Your task to perform on an android device: turn on airplane mode Image 0: 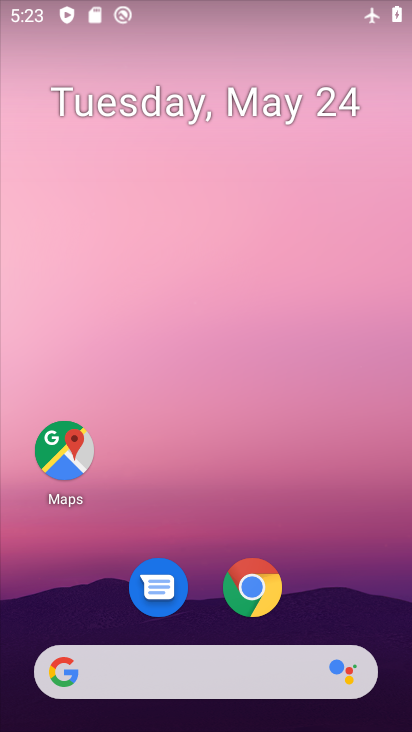
Step 0: drag from (369, 506) to (204, 2)
Your task to perform on an android device: turn on airplane mode Image 1: 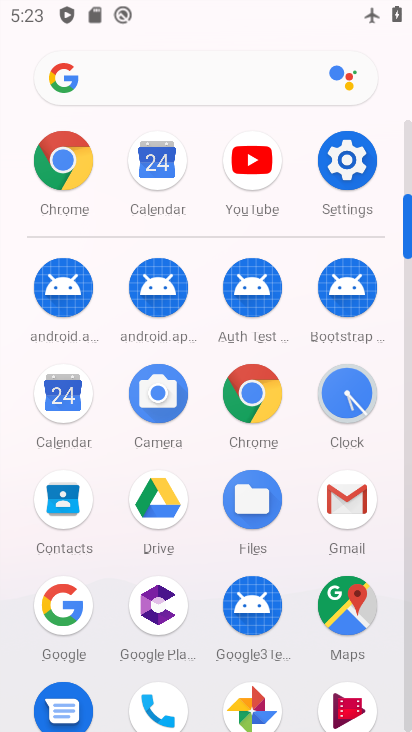
Step 1: click (347, 172)
Your task to perform on an android device: turn on airplane mode Image 2: 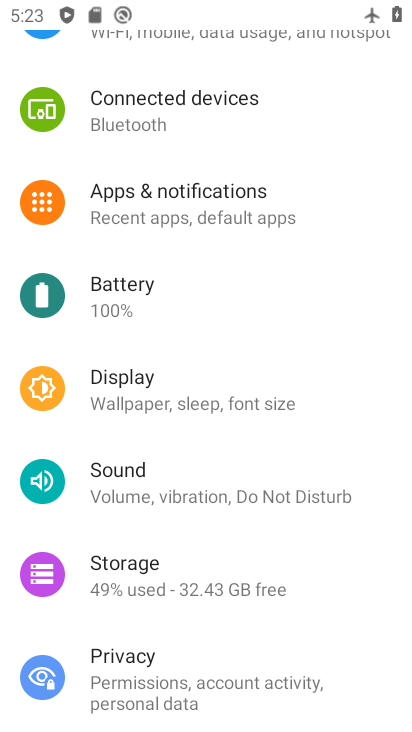
Step 2: drag from (268, 152) to (202, 651)
Your task to perform on an android device: turn on airplane mode Image 3: 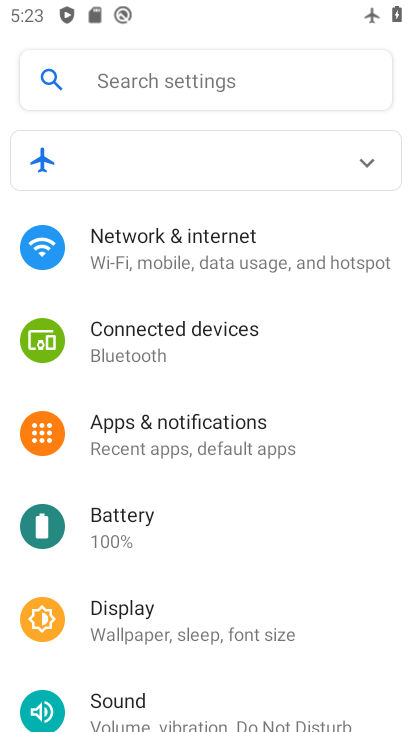
Step 3: click (233, 254)
Your task to perform on an android device: turn on airplane mode Image 4: 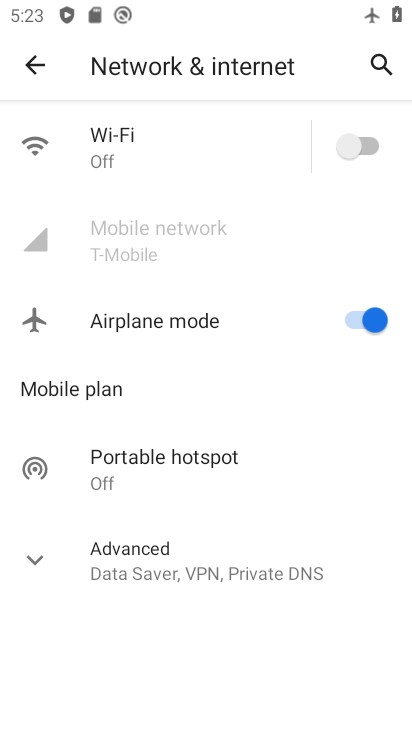
Step 4: task complete